Your task to perform on an android device: Check out the new nike air max 2020. Image 0: 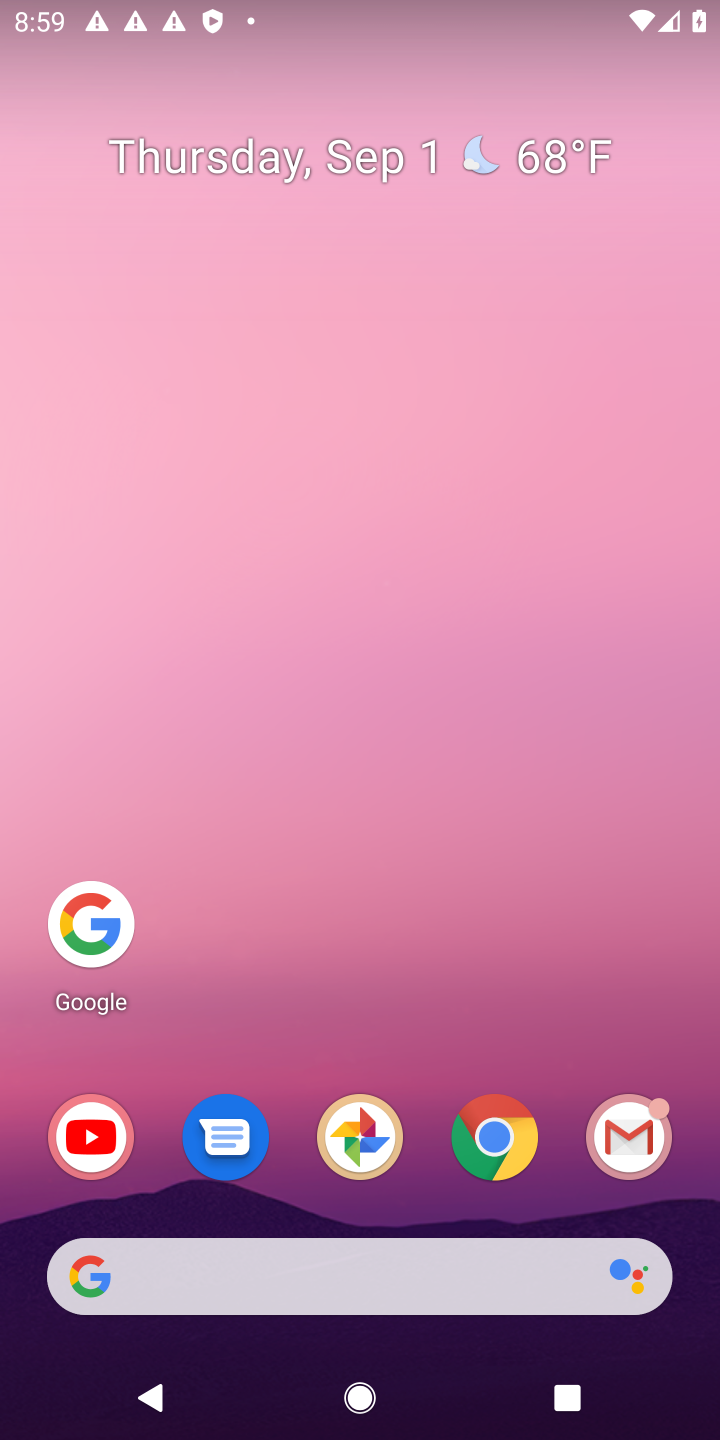
Step 0: click (100, 1270)
Your task to perform on an android device: Check out the new nike air max 2020. Image 1: 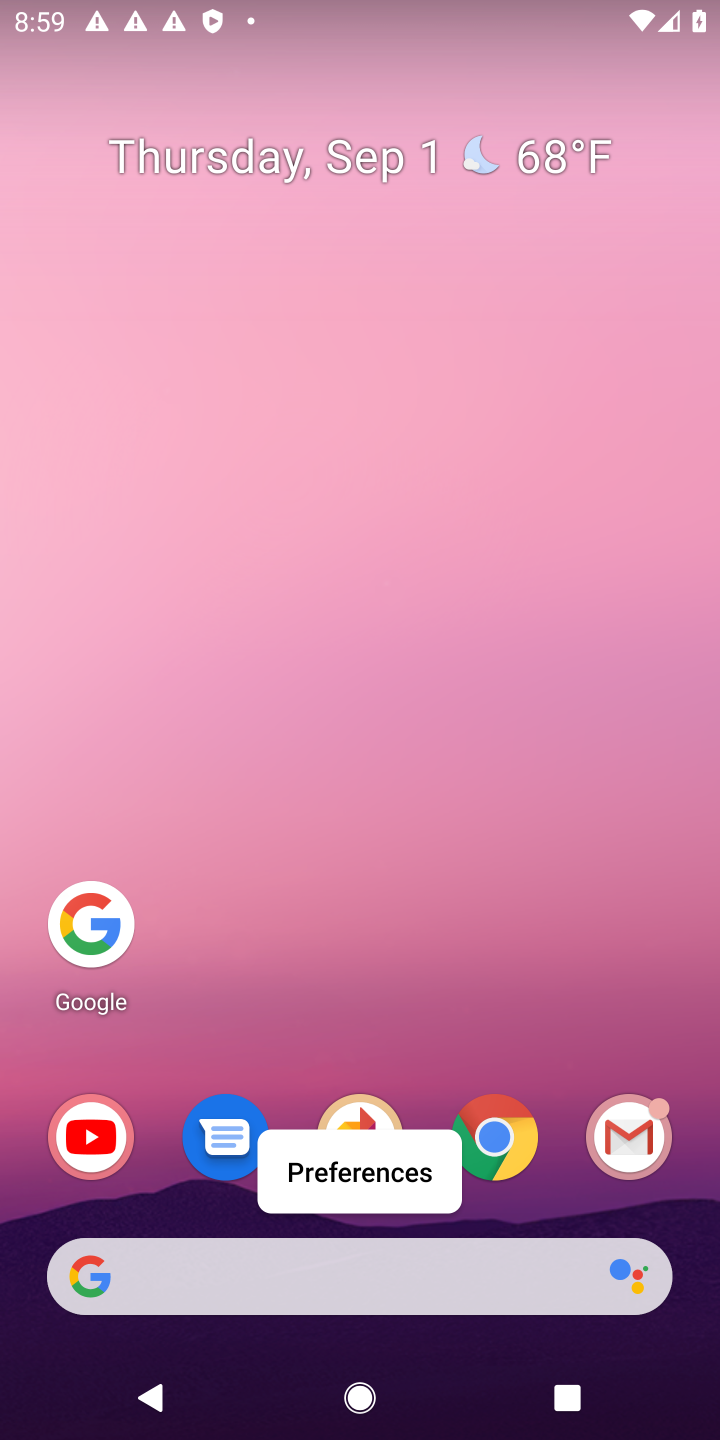
Step 1: click (72, 1285)
Your task to perform on an android device: Check out the new nike air max 2020. Image 2: 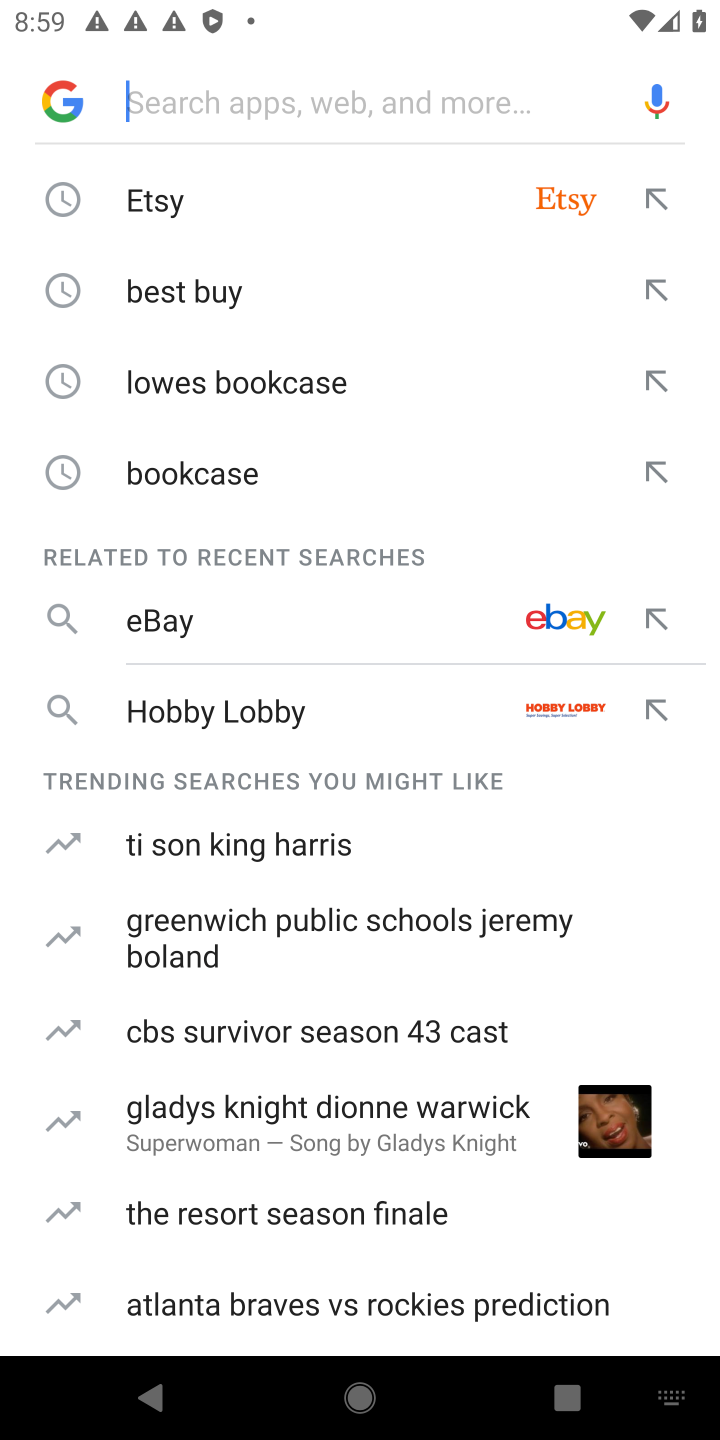
Step 2: type "new nike air max 2020."
Your task to perform on an android device: Check out the new nike air max 2020. Image 3: 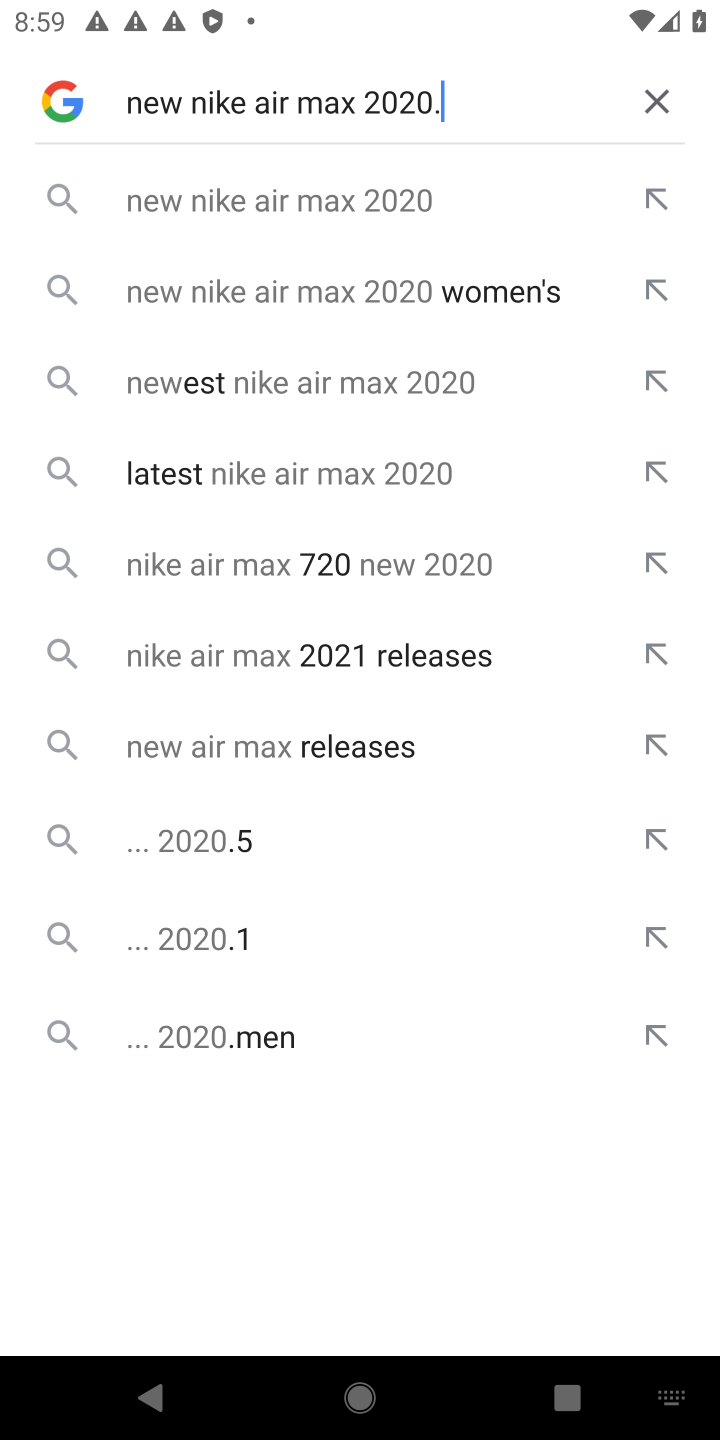
Step 3: click (222, 198)
Your task to perform on an android device: Check out the new nike air max 2020. Image 4: 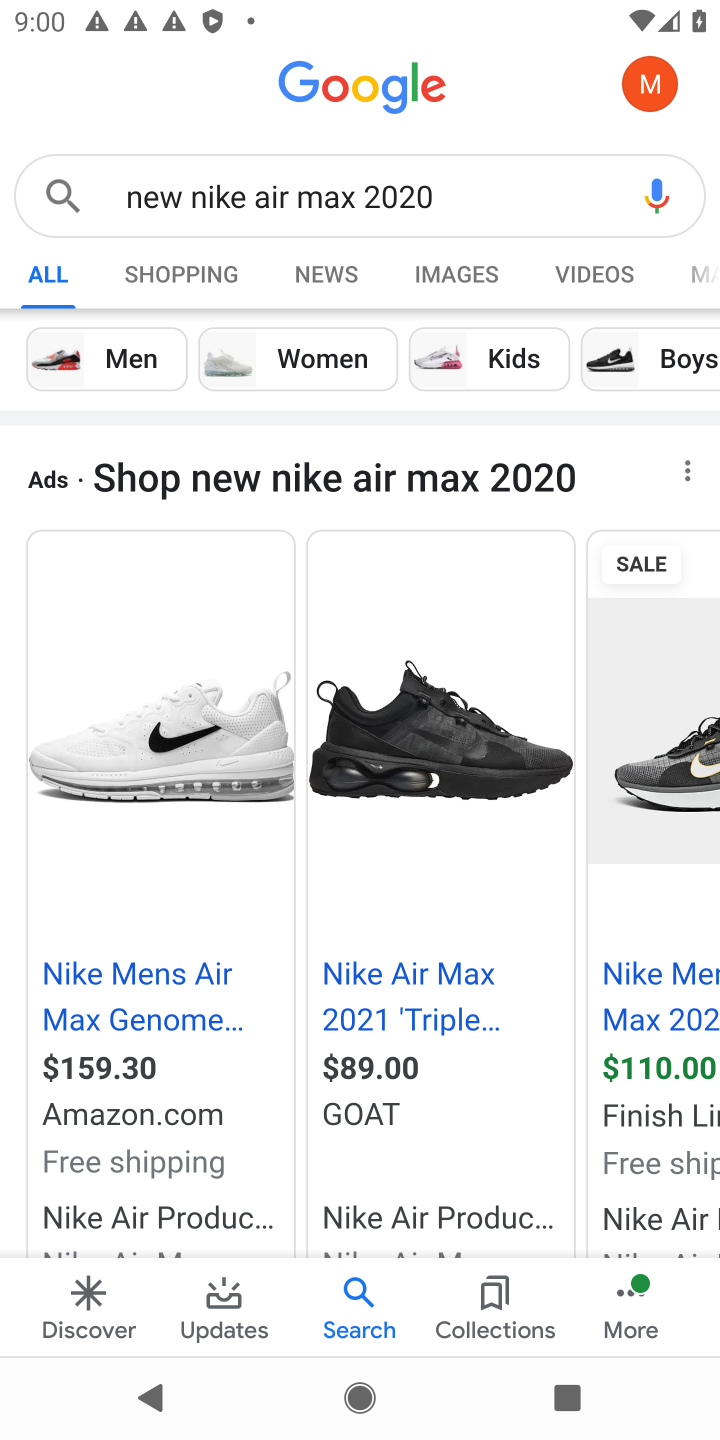
Step 4: task complete